Your task to perform on an android device: uninstall "Facebook Messenger" Image 0: 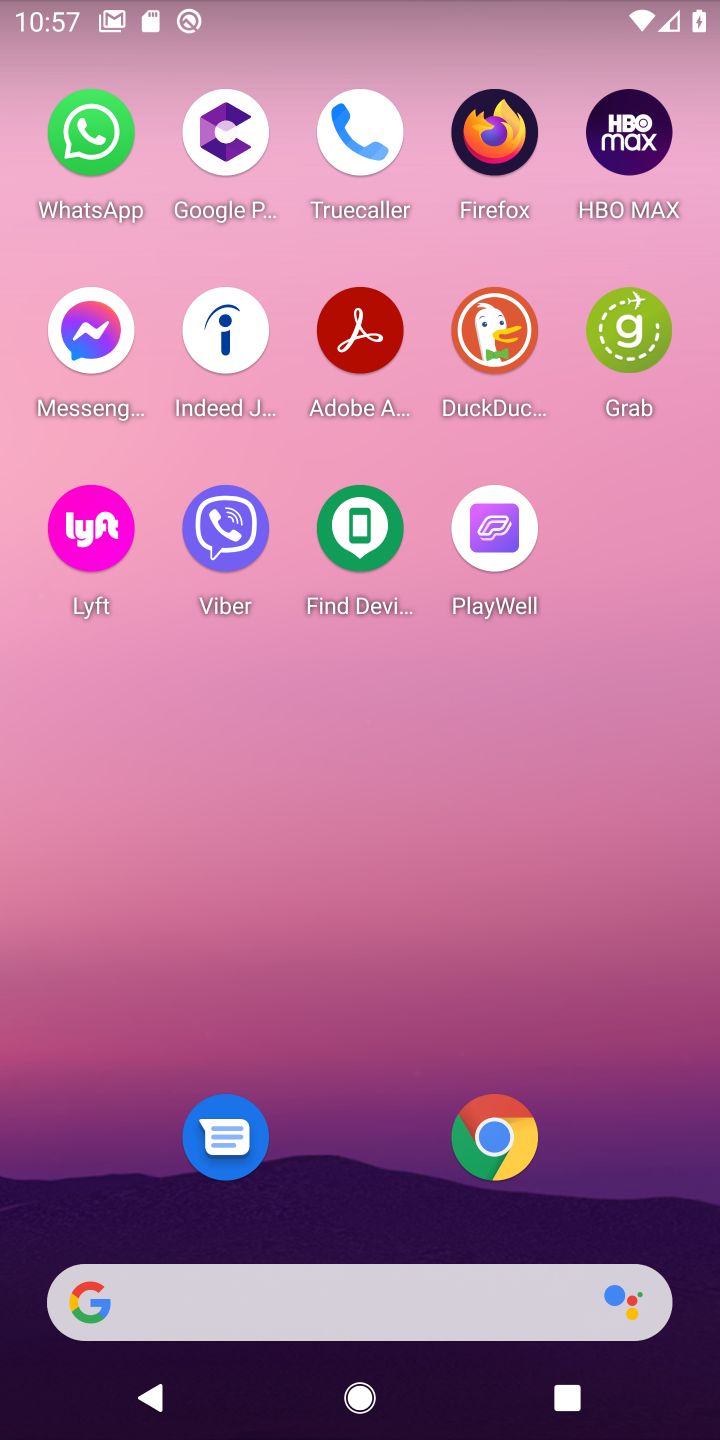
Step 0: drag from (333, 1115) to (18, 372)
Your task to perform on an android device: uninstall "Facebook Messenger" Image 1: 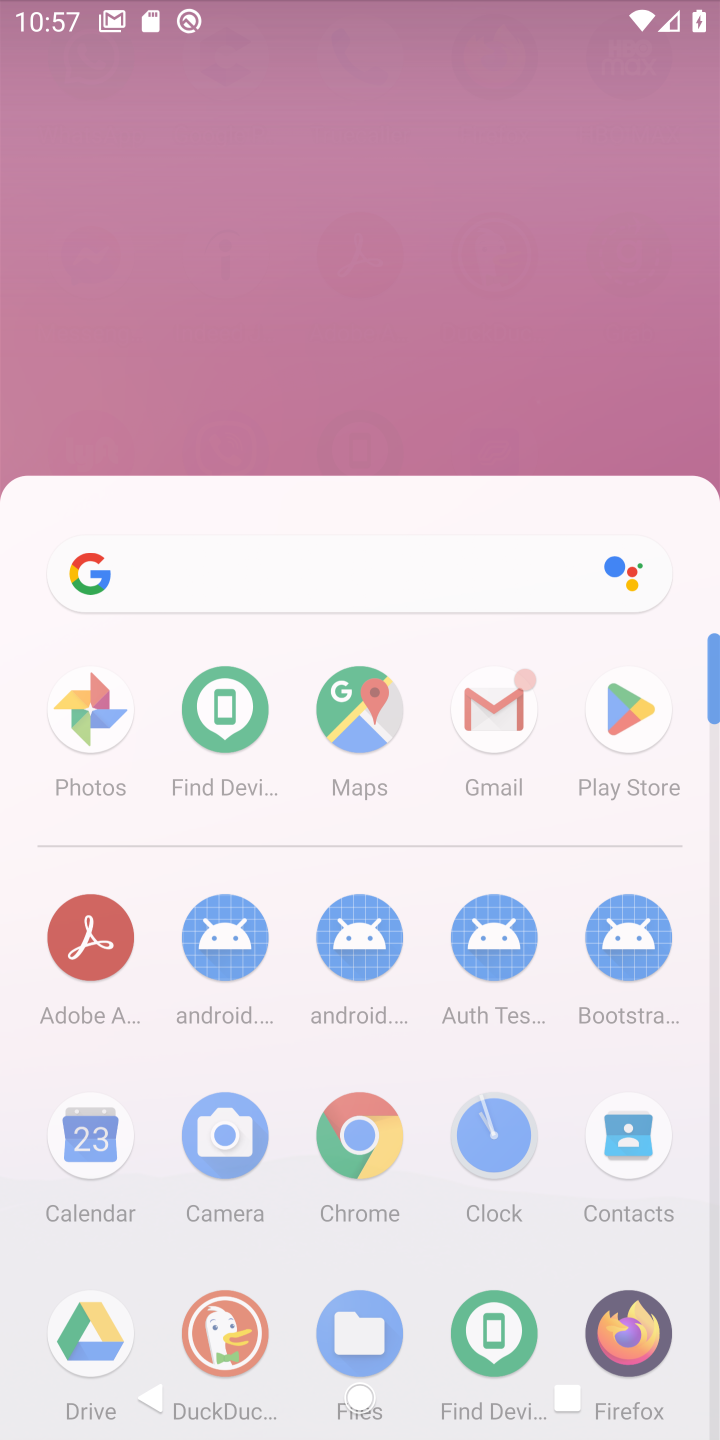
Step 1: click (639, 399)
Your task to perform on an android device: uninstall "Facebook Messenger" Image 2: 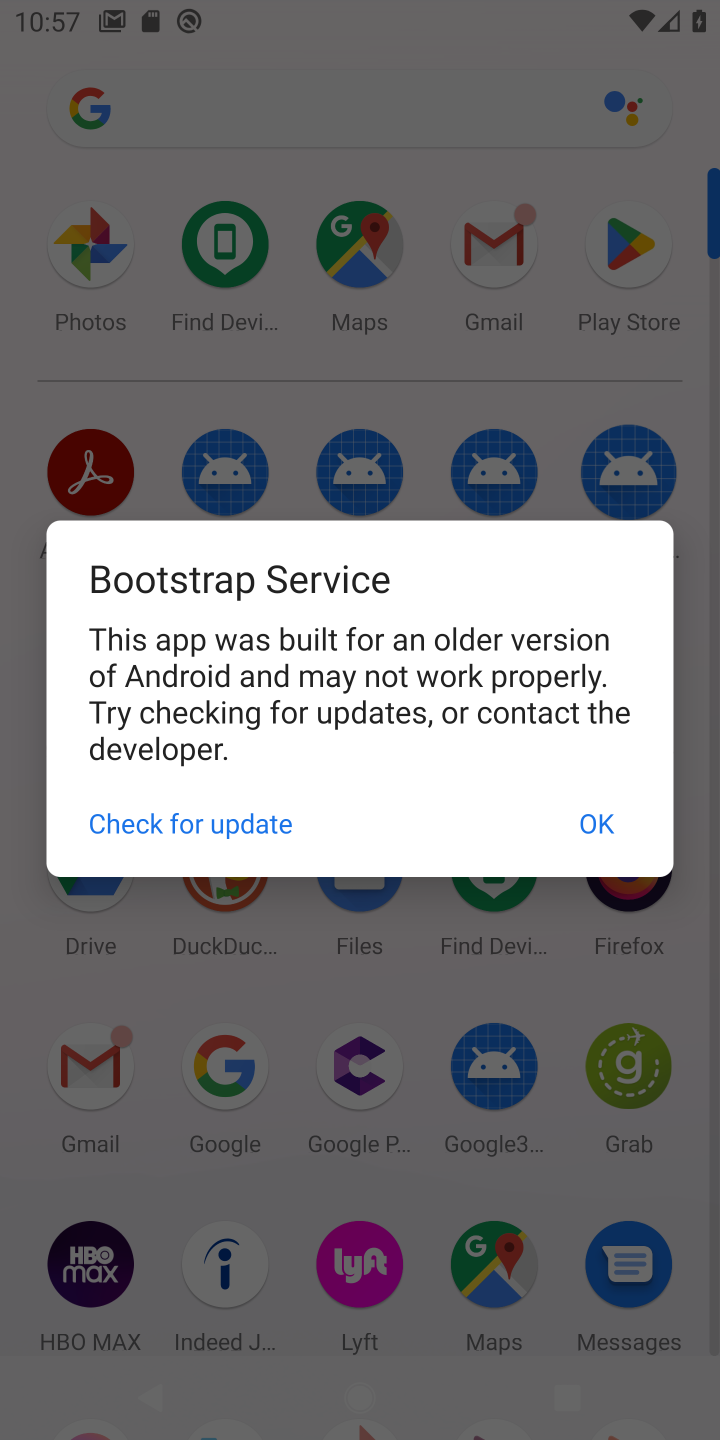
Step 2: click (618, 285)
Your task to perform on an android device: uninstall "Facebook Messenger" Image 3: 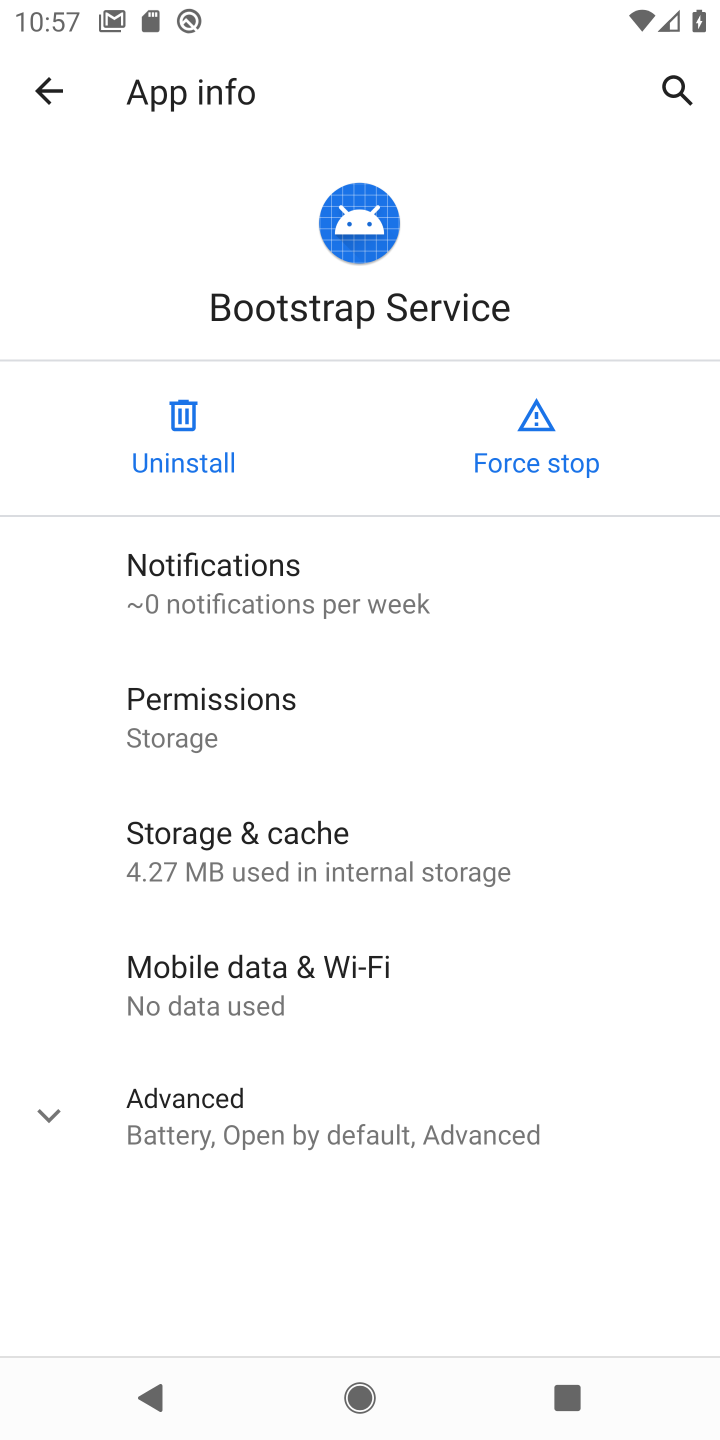
Step 3: press home button
Your task to perform on an android device: uninstall "Facebook Messenger" Image 4: 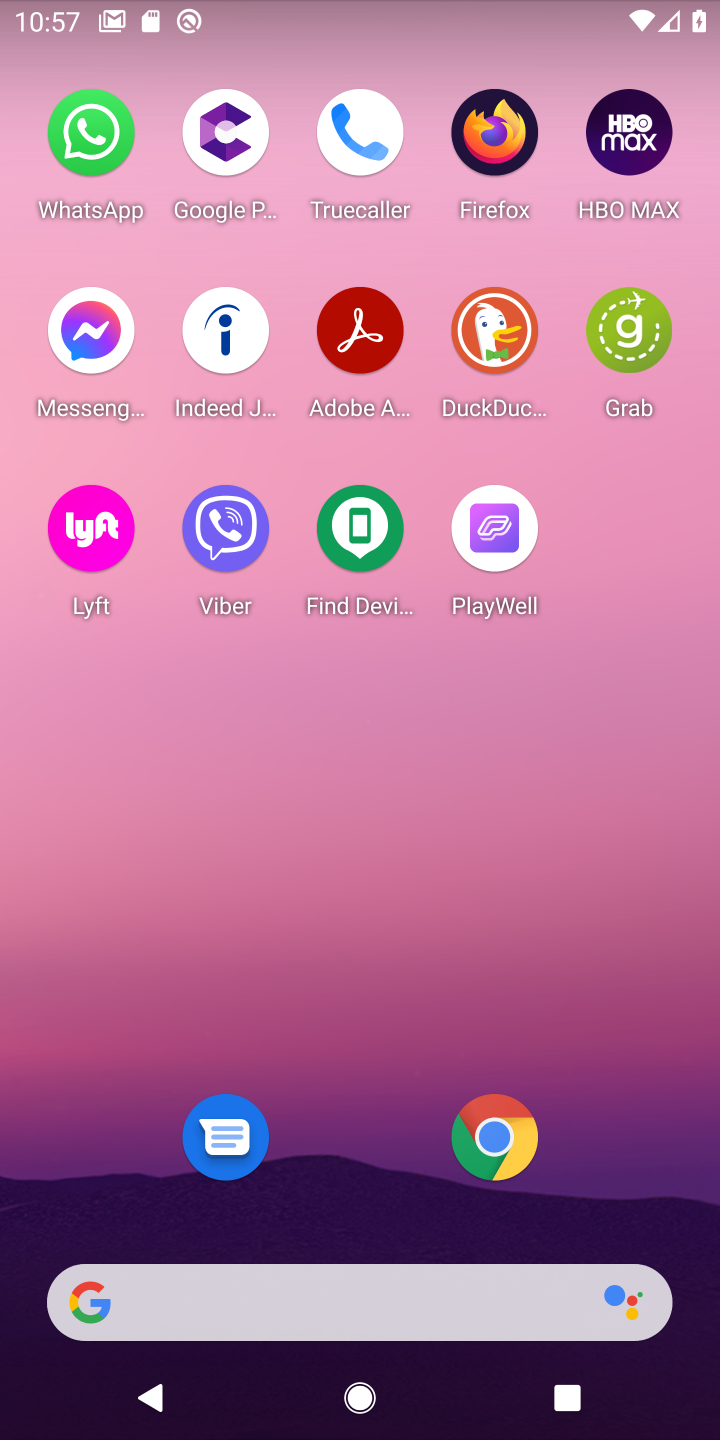
Step 4: drag from (360, 1017) to (431, 128)
Your task to perform on an android device: uninstall "Facebook Messenger" Image 5: 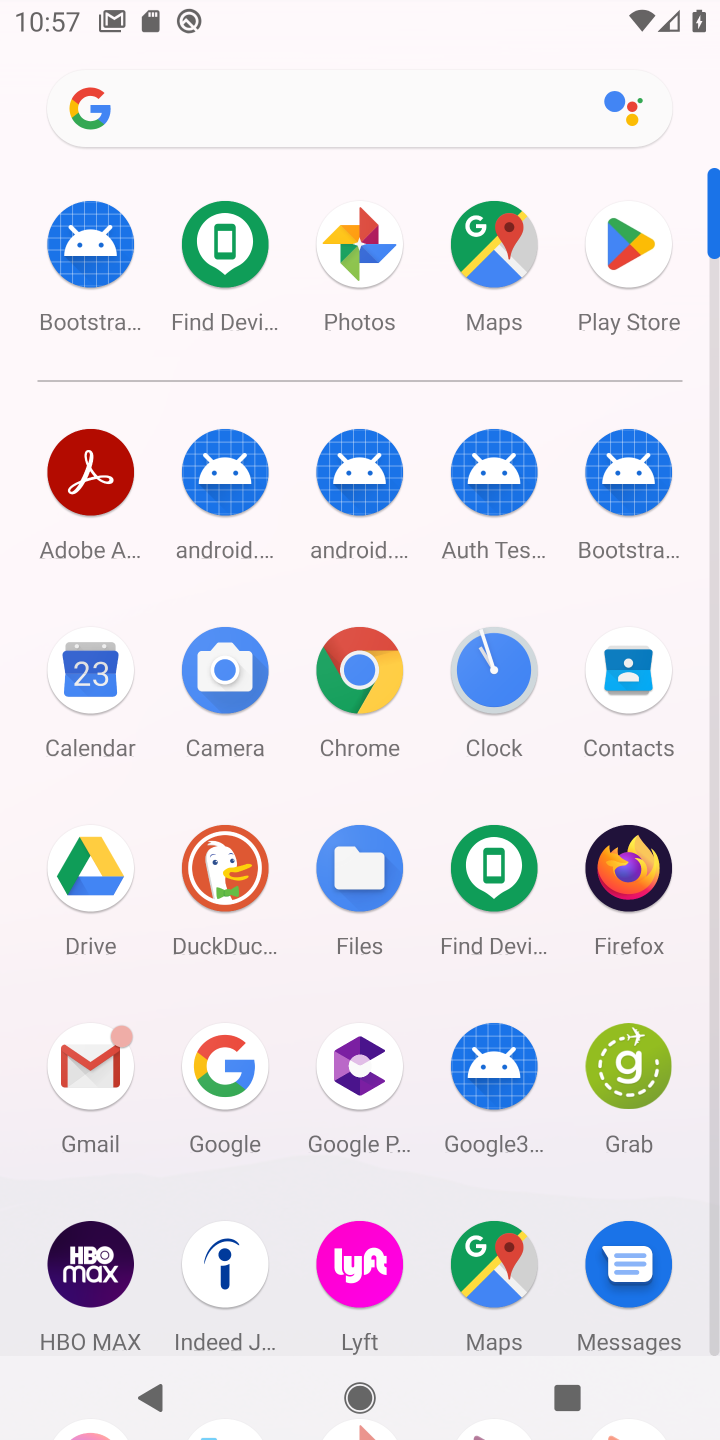
Step 5: click (628, 271)
Your task to perform on an android device: uninstall "Facebook Messenger" Image 6: 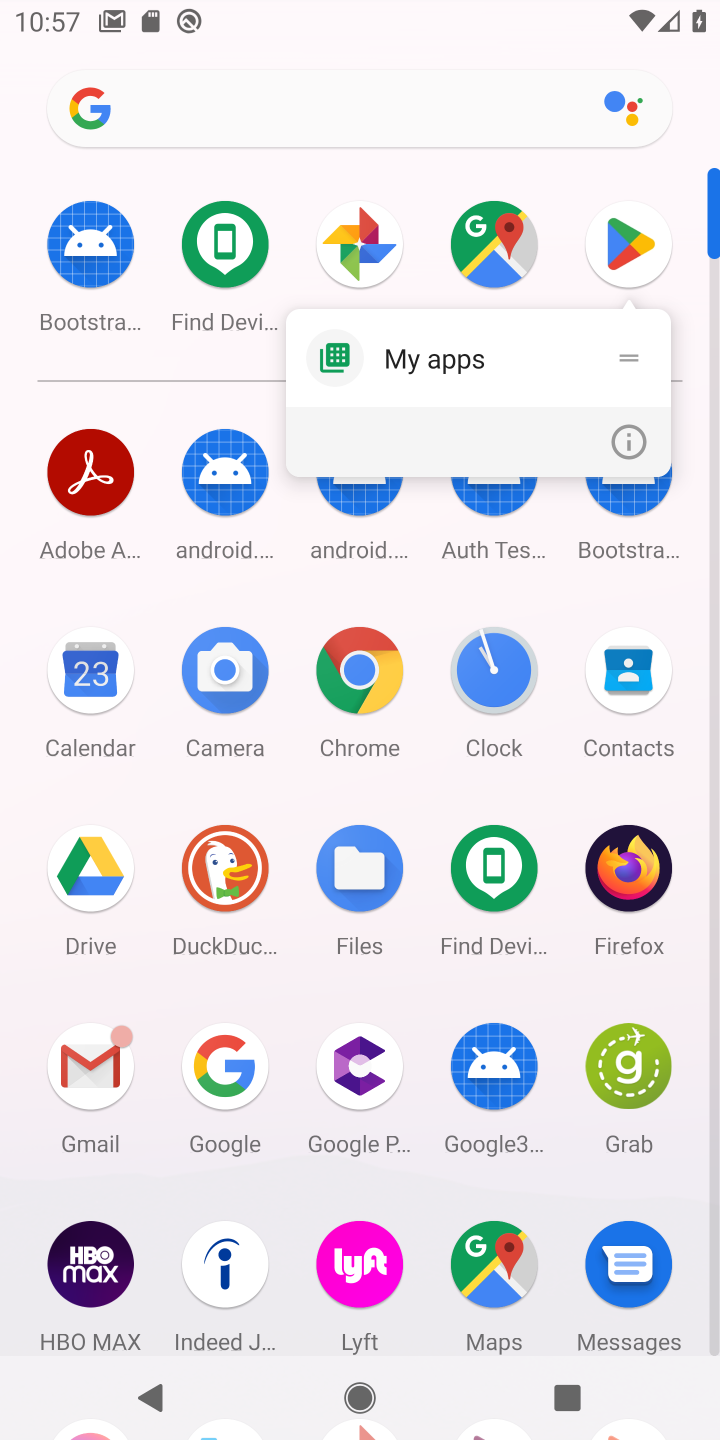
Step 6: click (641, 235)
Your task to perform on an android device: uninstall "Facebook Messenger" Image 7: 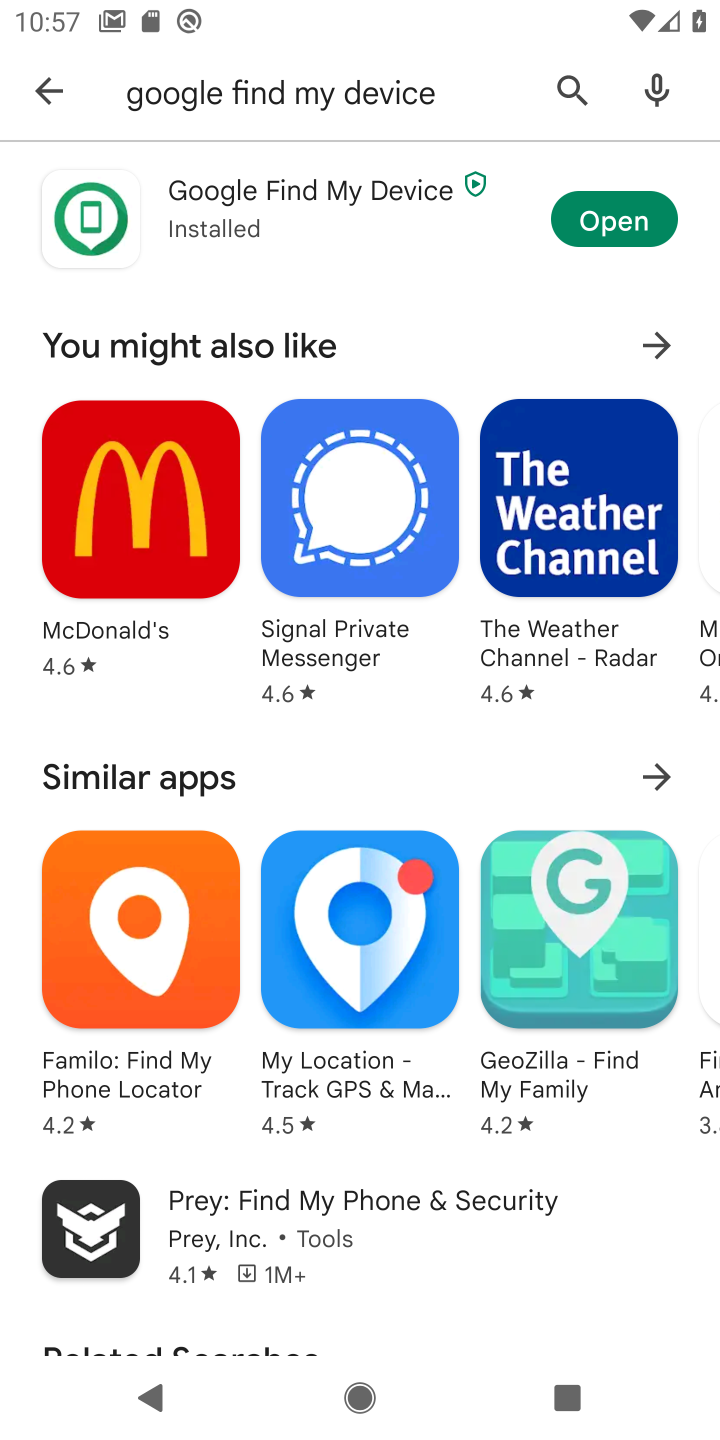
Step 7: click (390, 92)
Your task to perform on an android device: uninstall "Facebook Messenger" Image 8: 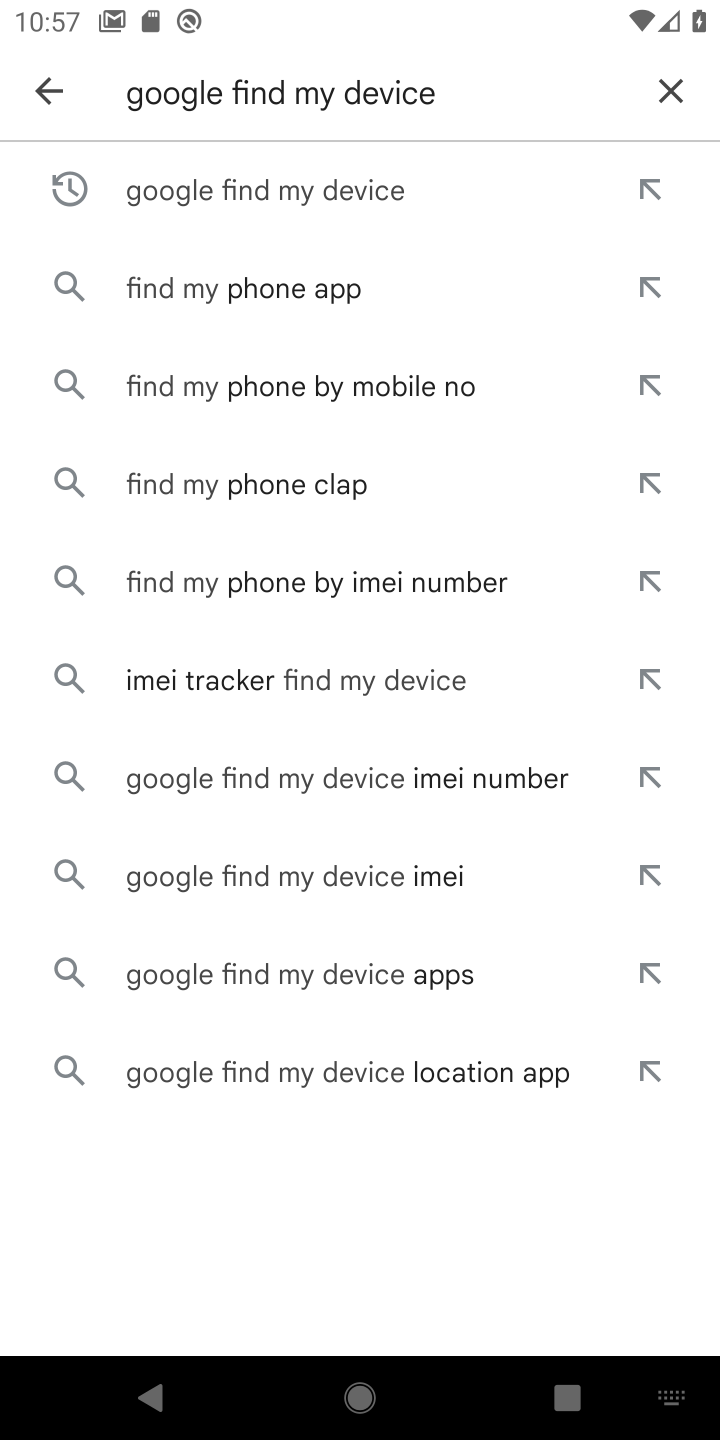
Step 8: click (670, 80)
Your task to perform on an android device: uninstall "Facebook Messenger" Image 9: 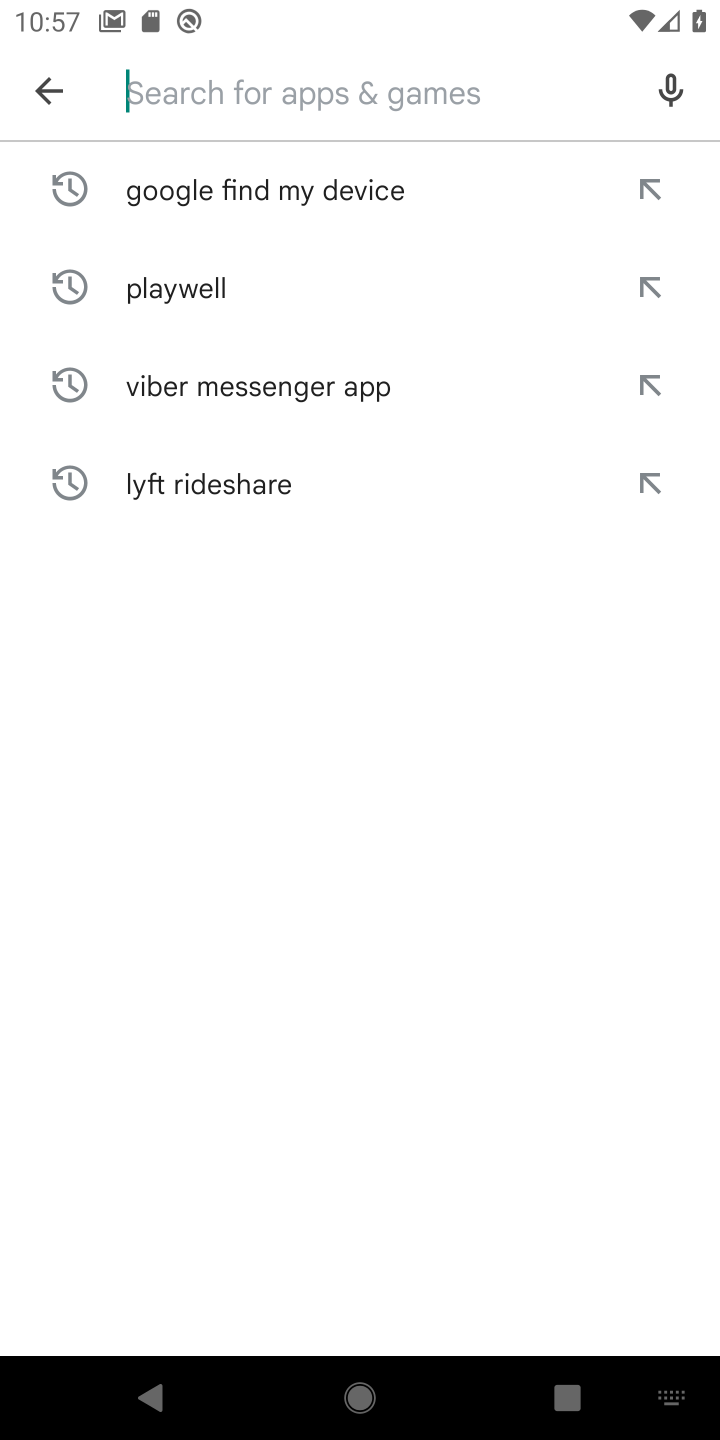
Step 9: type "facebook messenger"
Your task to perform on an android device: uninstall "Facebook Messenger" Image 10: 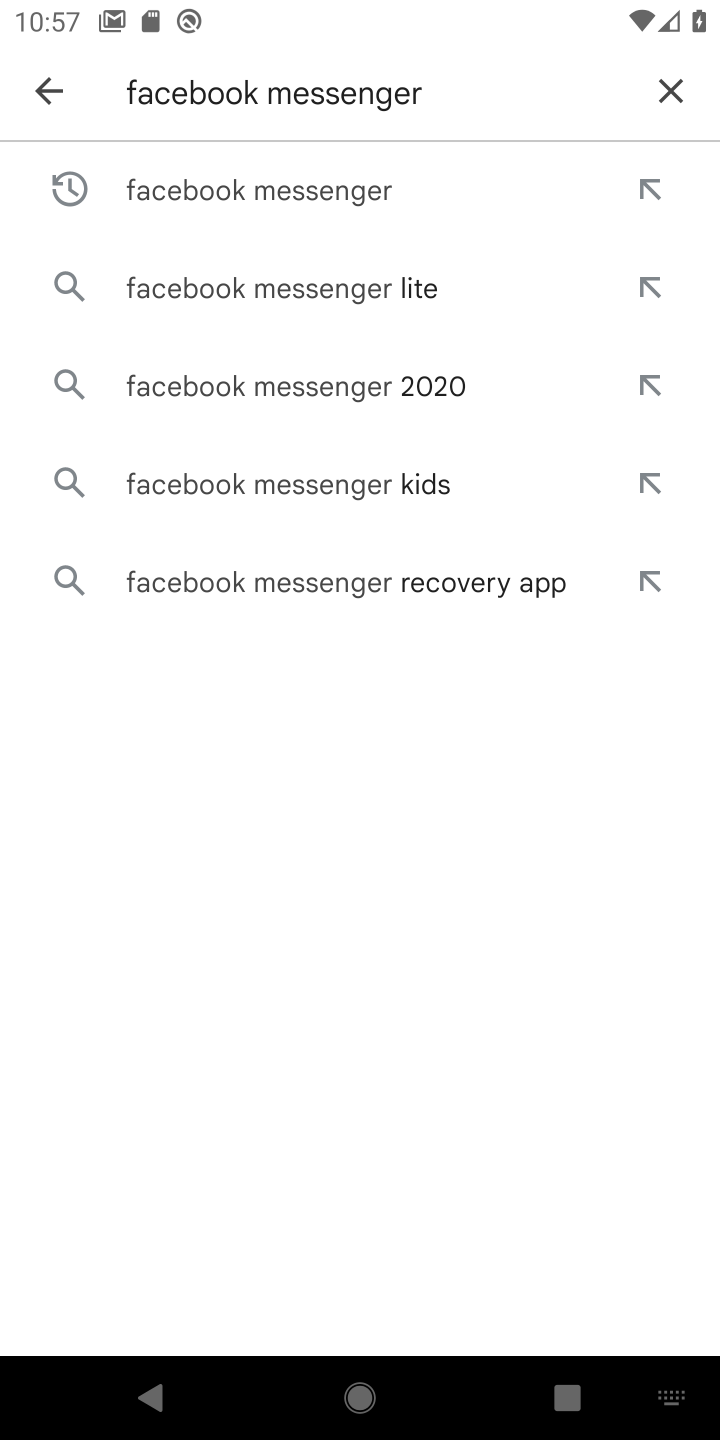
Step 10: click (312, 182)
Your task to perform on an android device: uninstall "Facebook Messenger" Image 11: 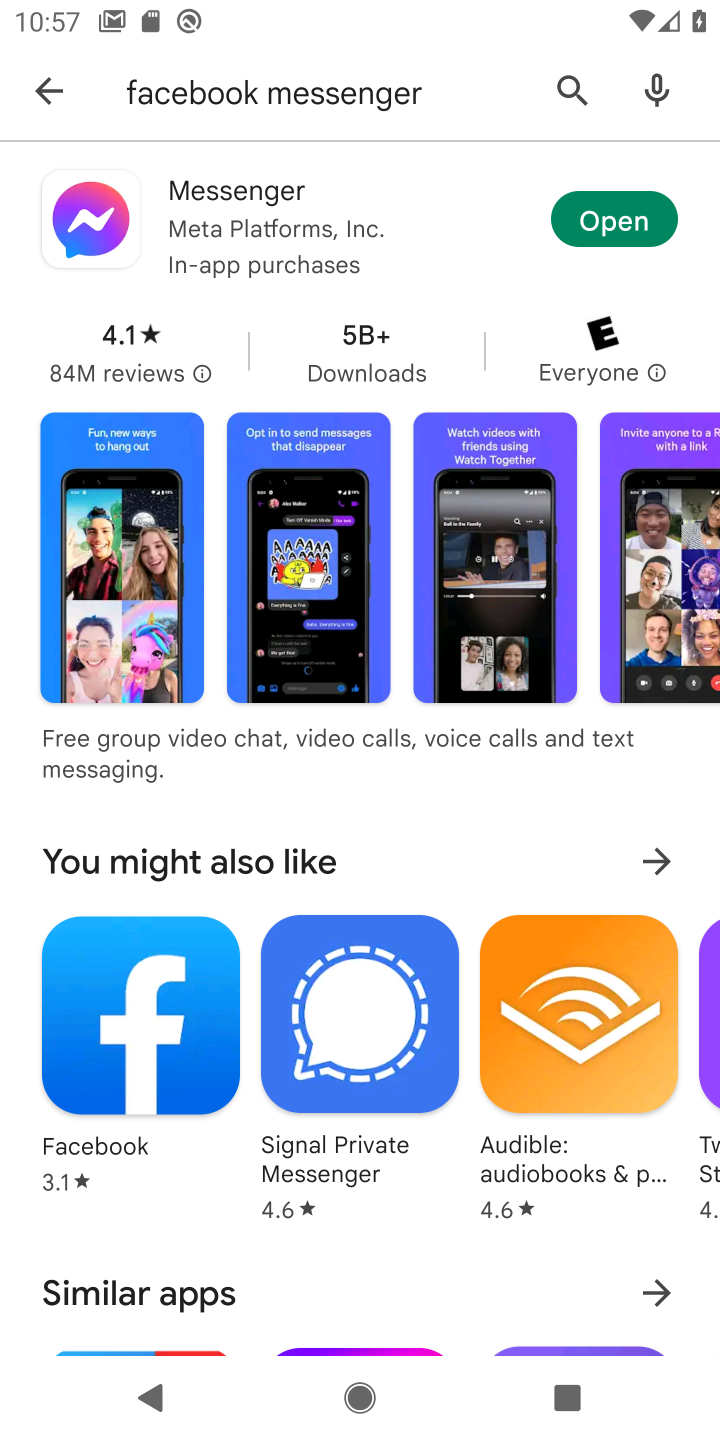
Step 11: click (146, 227)
Your task to perform on an android device: uninstall "Facebook Messenger" Image 12: 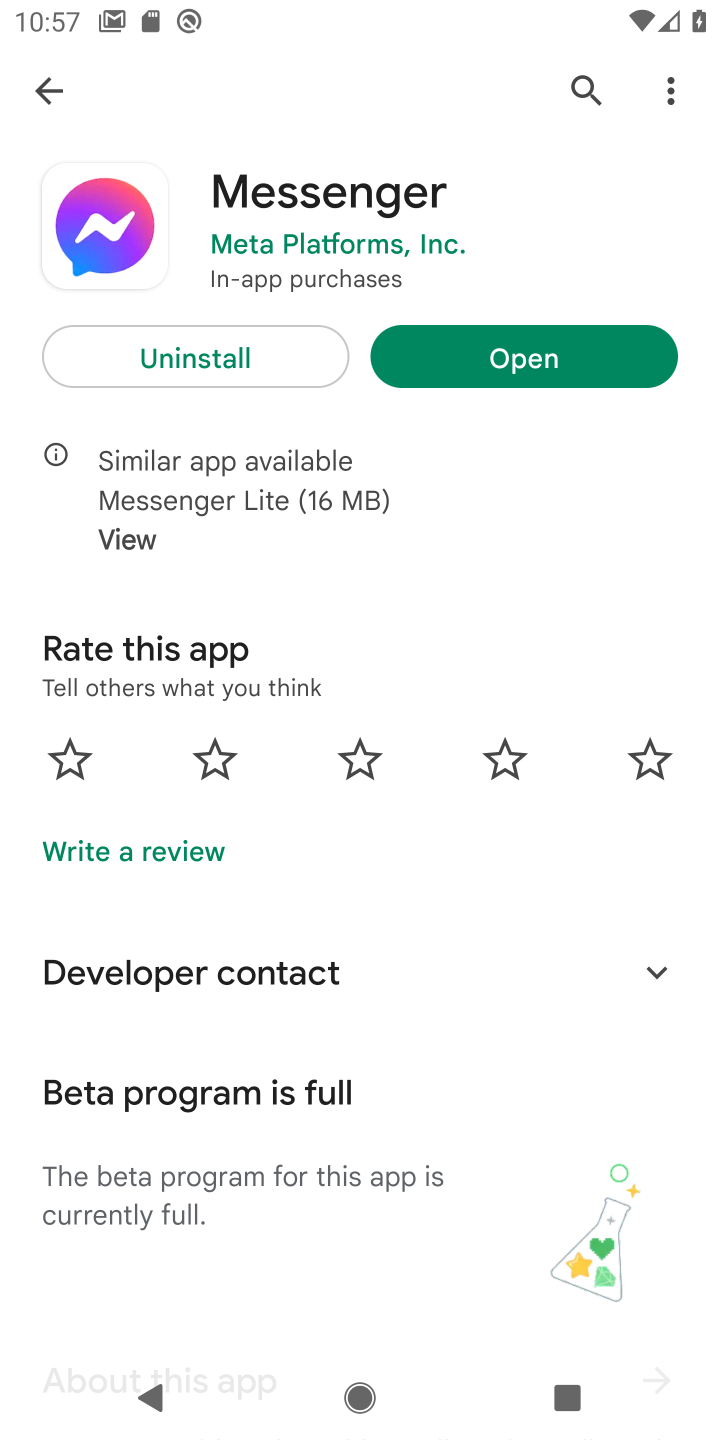
Step 12: click (291, 351)
Your task to perform on an android device: uninstall "Facebook Messenger" Image 13: 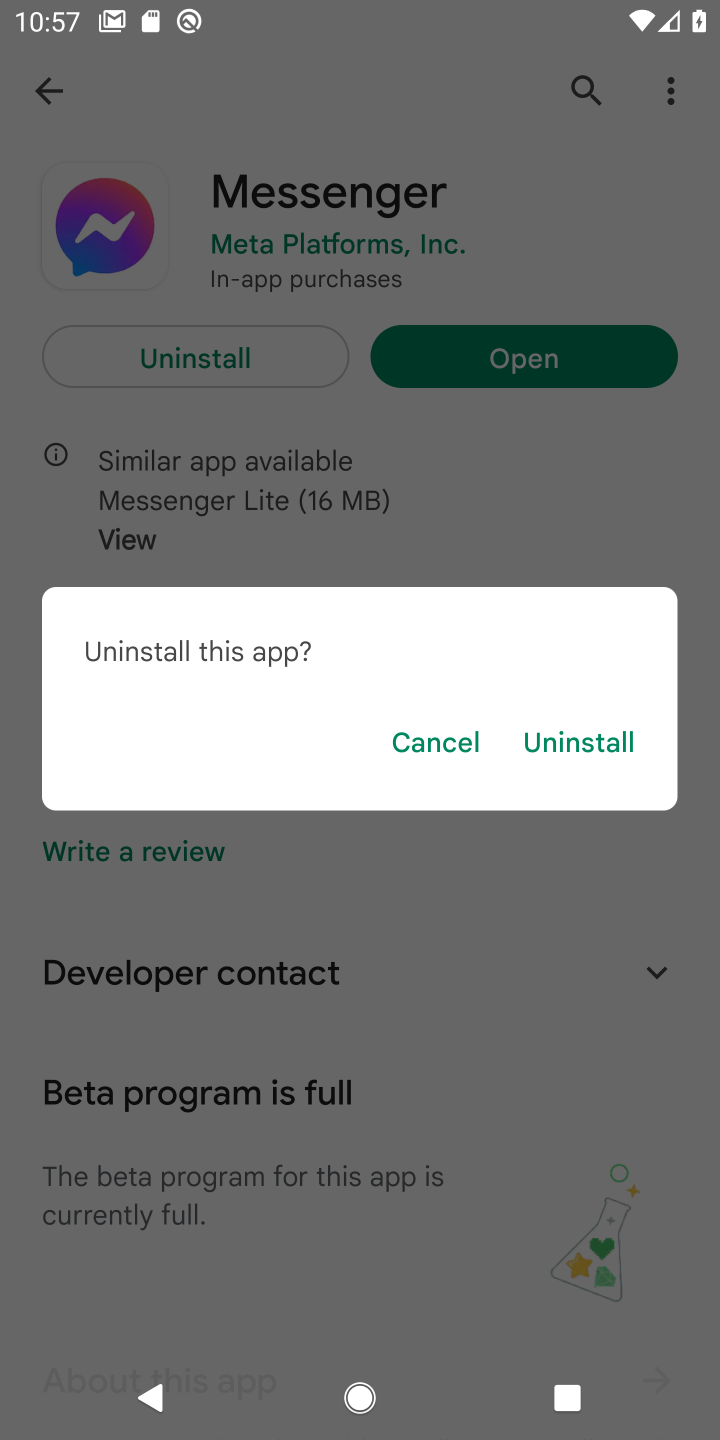
Step 13: click (569, 734)
Your task to perform on an android device: uninstall "Facebook Messenger" Image 14: 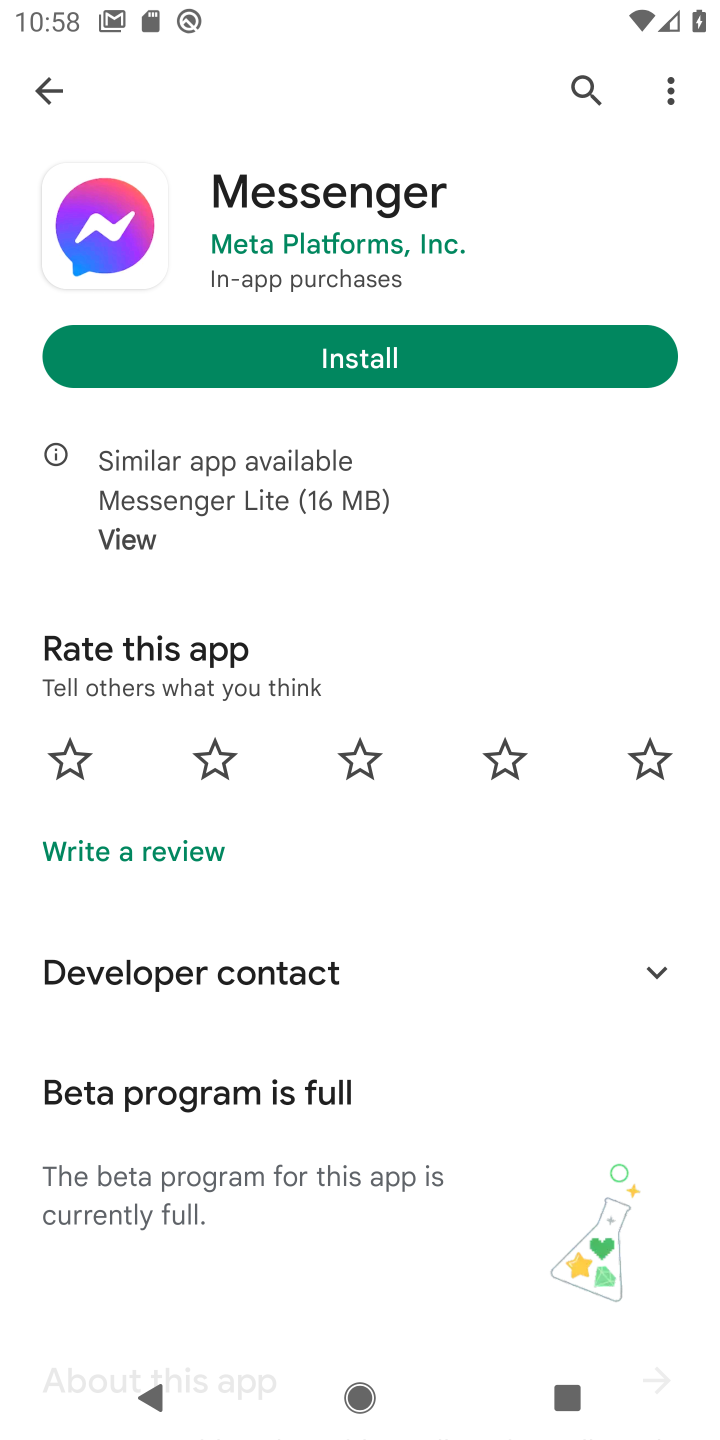
Step 14: task complete